Your task to perform on an android device: Open Google Maps Image 0: 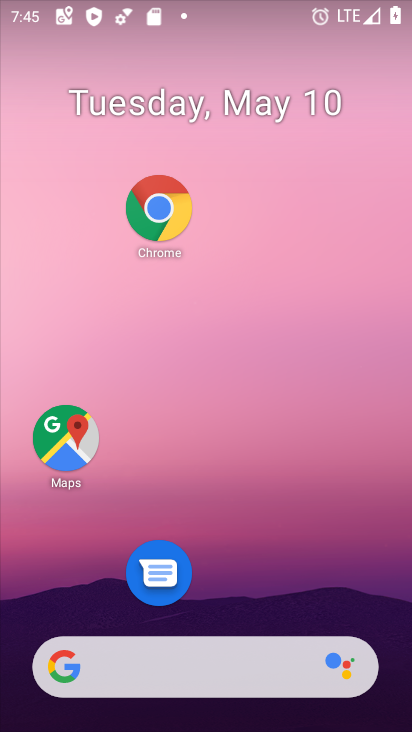
Step 0: drag from (278, 707) to (345, 272)
Your task to perform on an android device: Open Google Maps Image 1: 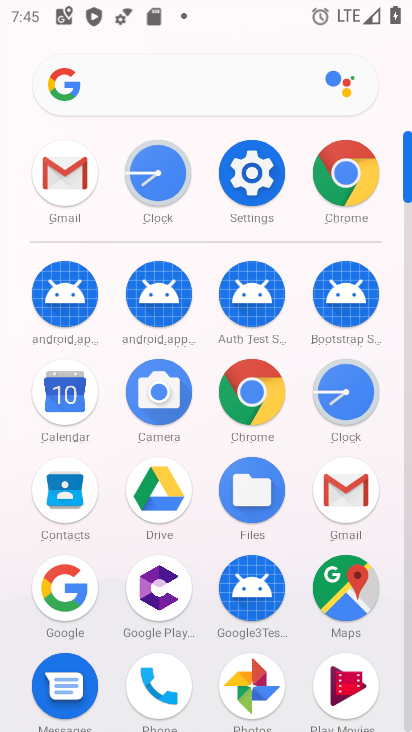
Step 1: click (321, 589)
Your task to perform on an android device: Open Google Maps Image 2: 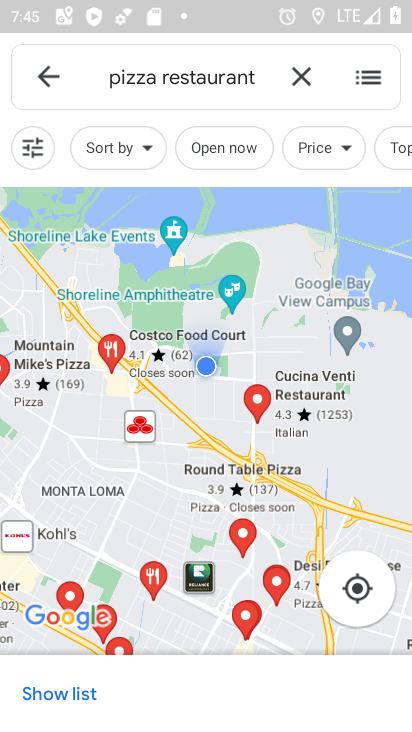
Step 2: click (52, 74)
Your task to perform on an android device: Open Google Maps Image 3: 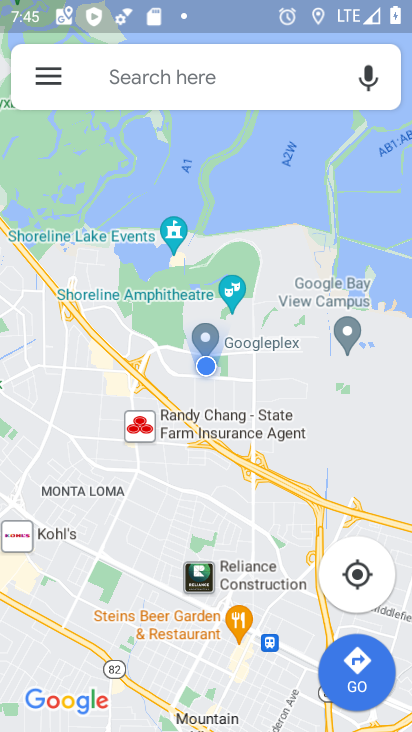
Step 3: click (146, 360)
Your task to perform on an android device: Open Google Maps Image 4: 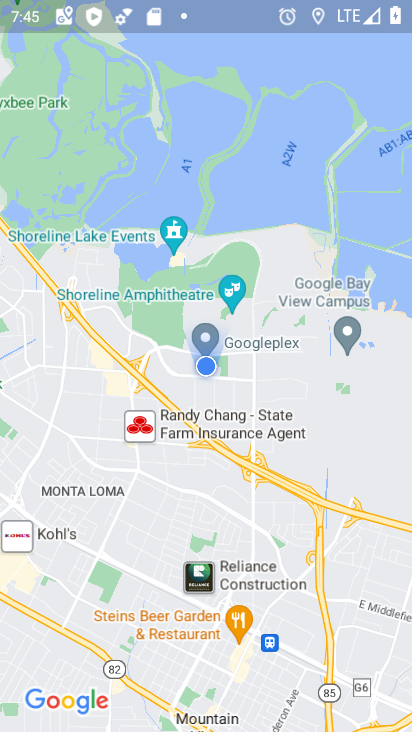
Step 4: task complete